Your task to perform on an android device: Open internet settings Image 0: 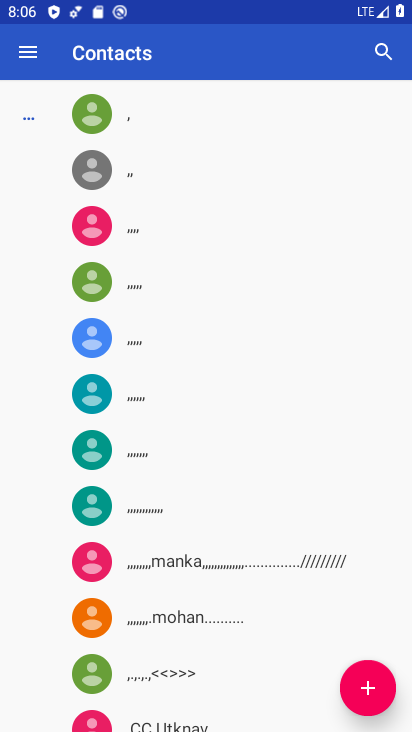
Step 0: press back button
Your task to perform on an android device: Open internet settings Image 1: 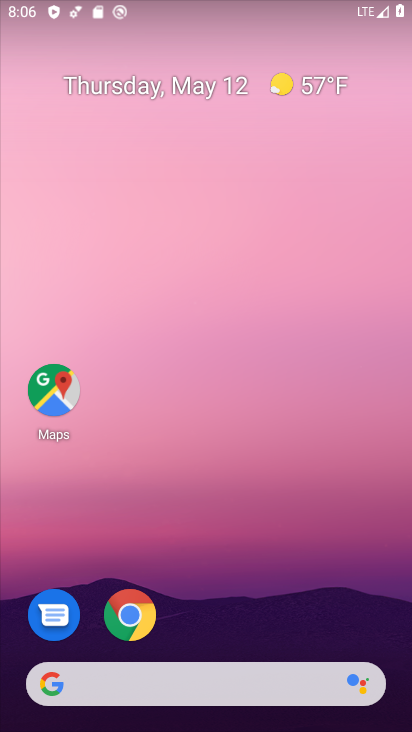
Step 1: drag from (229, 552) to (2, 64)
Your task to perform on an android device: Open internet settings Image 2: 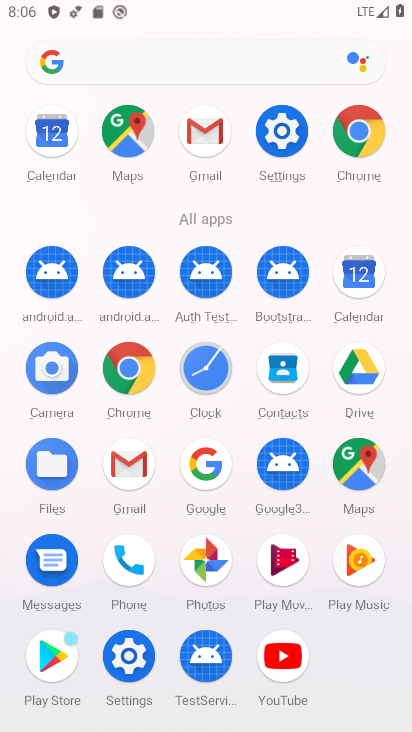
Step 2: drag from (6, 458) to (1, 244)
Your task to perform on an android device: Open internet settings Image 3: 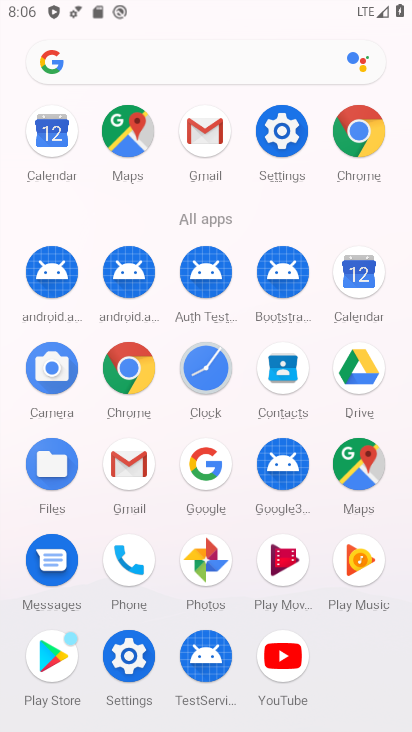
Step 3: click (279, 128)
Your task to perform on an android device: Open internet settings Image 4: 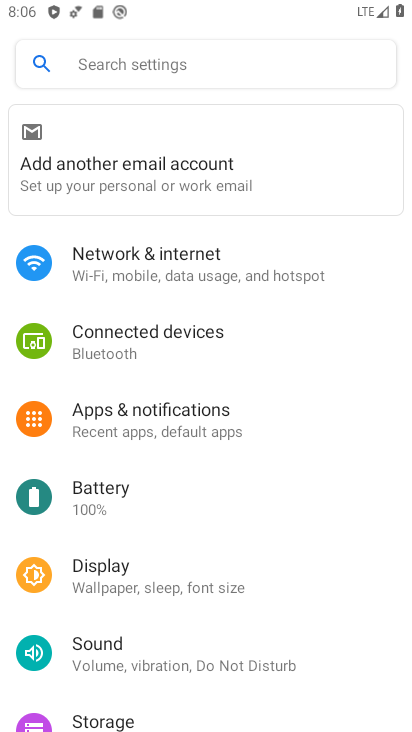
Step 4: click (221, 257)
Your task to perform on an android device: Open internet settings Image 5: 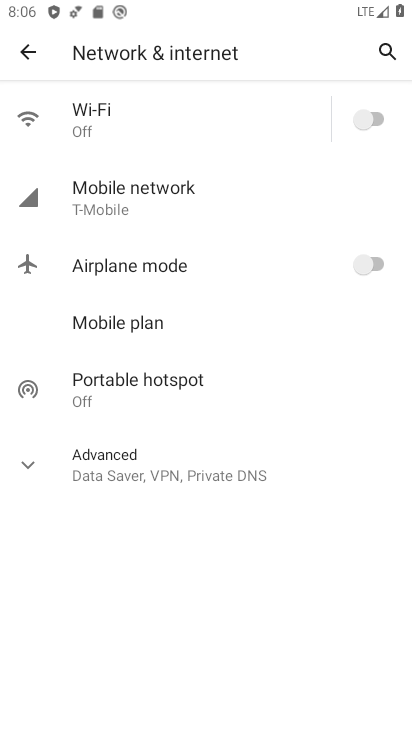
Step 5: click (40, 465)
Your task to perform on an android device: Open internet settings Image 6: 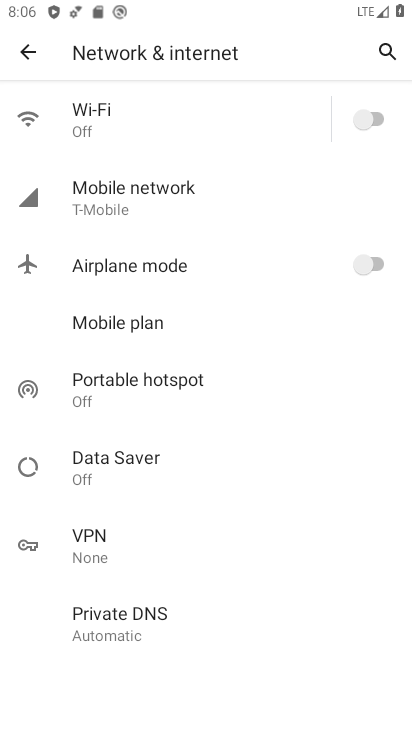
Step 6: task complete